Your task to perform on an android device: Go to Android settings Image 0: 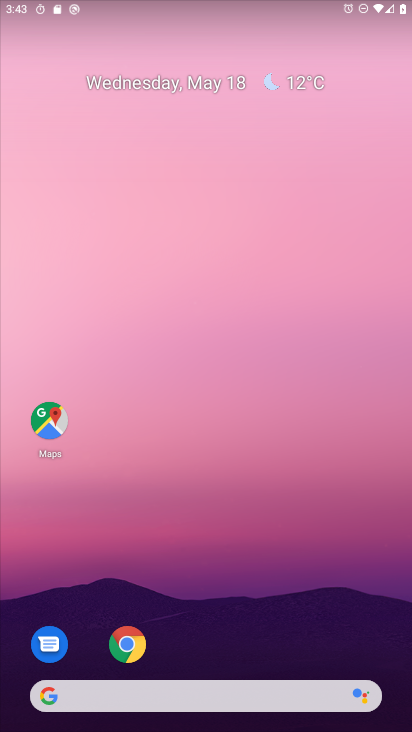
Step 0: drag from (382, 685) to (404, 195)
Your task to perform on an android device: Go to Android settings Image 1: 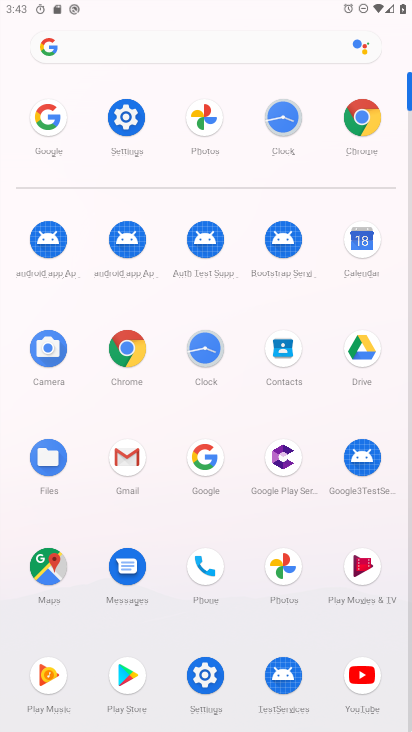
Step 1: click (124, 120)
Your task to perform on an android device: Go to Android settings Image 2: 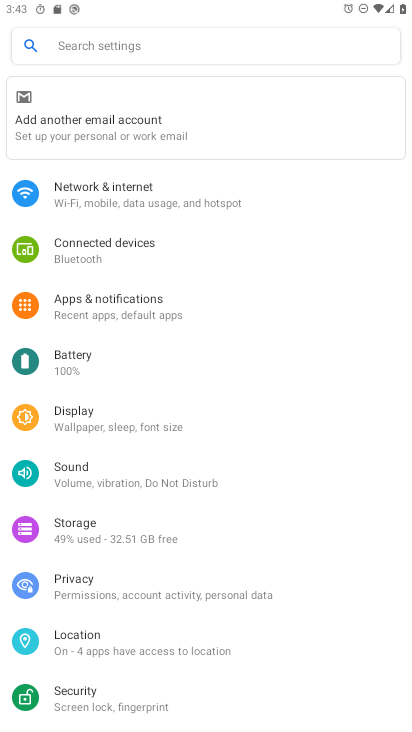
Step 2: task complete